Your task to perform on an android device: clear history in the chrome app Image 0: 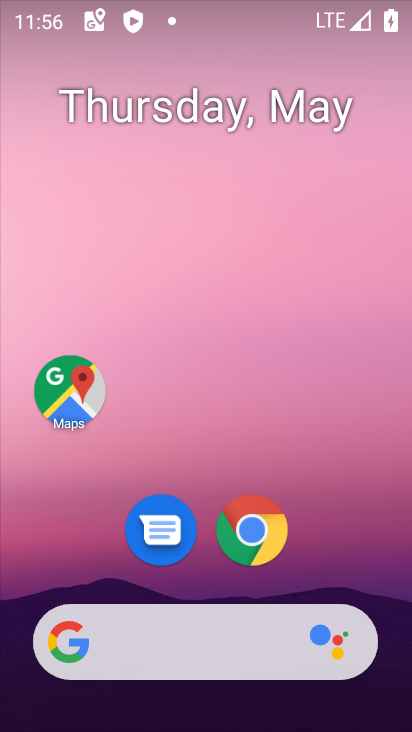
Step 0: click (249, 547)
Your task to perform on an android device: clear history in the chrome app Image 1: 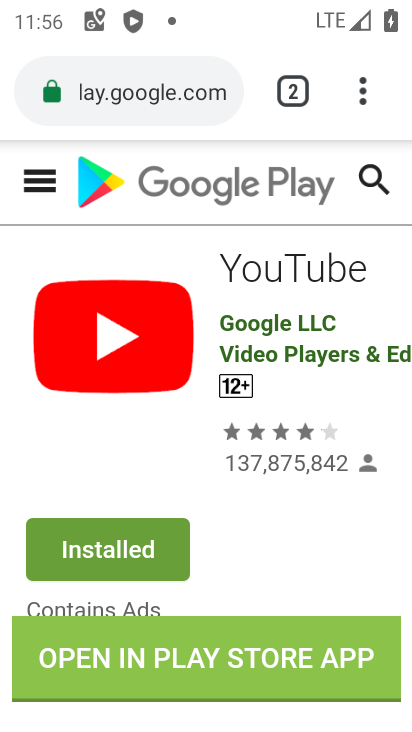
Step 1: click (365, 94)
Your task to perform on an android device: clear history in the chrome app Image 2: 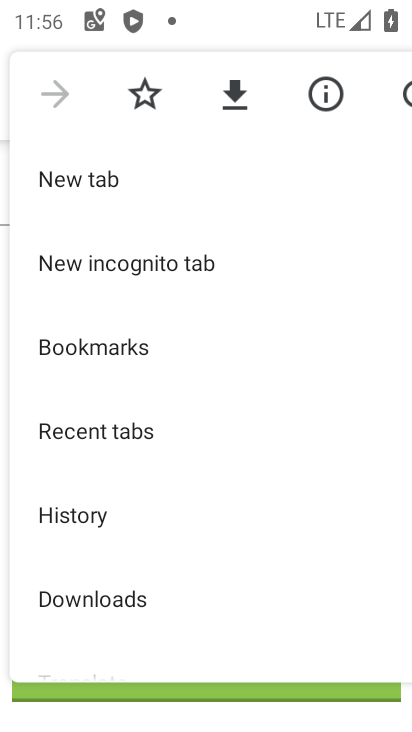
Step 2: click (91, 518)
Your task to perform on an android device: clear history in the chrome app Image 3: 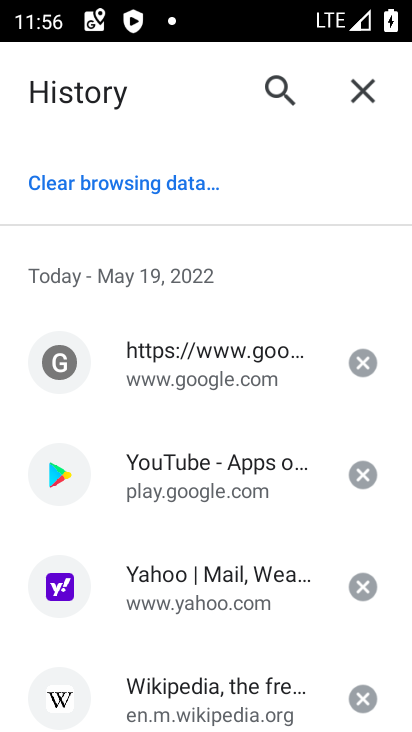
Step 3: click (207, 184)
Your task to perform on an android device: clear history in the chrome app Image 4: 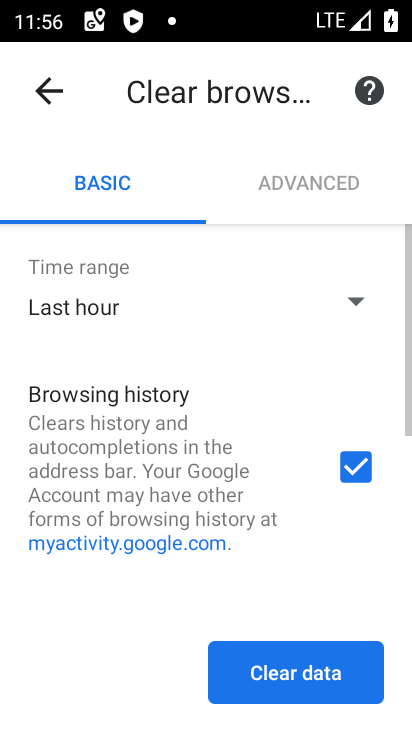
Step 4: click (262, 672)
Your task to perform on an android device: clear history in the chrome app Image 5: 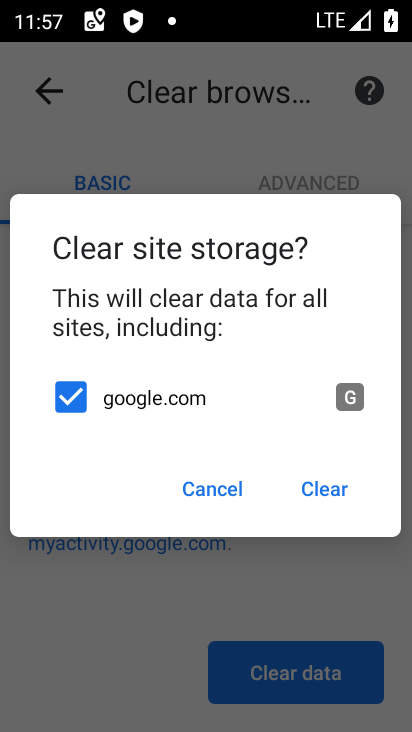
Step 5: click (340, 489)
Your task to perform on an android device: clear history in the chrome app Image 6: 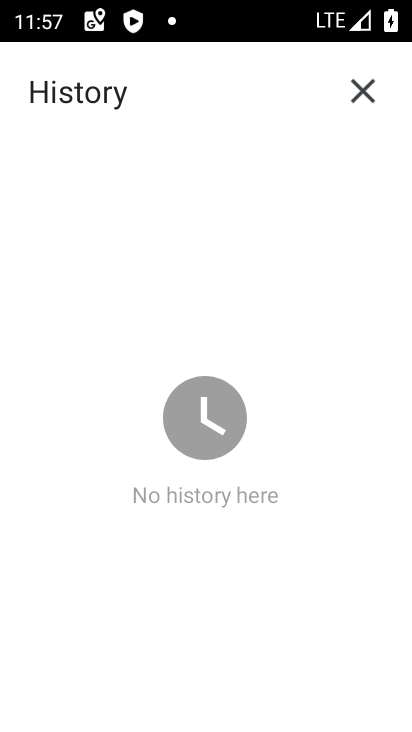
Step 6: task complete